Your task to perform on an android device: open chrome privacy settings Image 0: 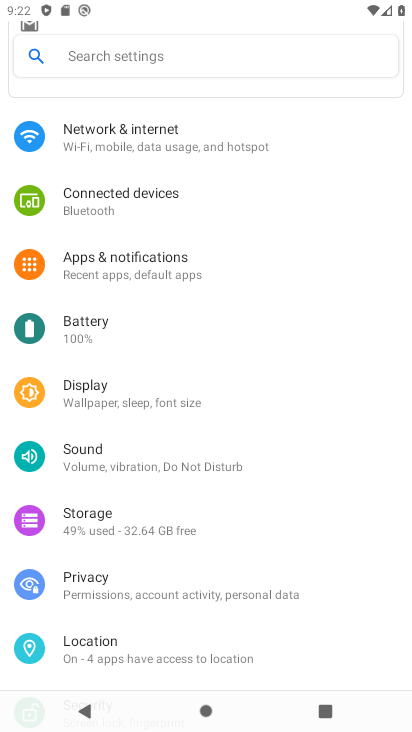
Step 0: click (74, 581)
Your task to perform on an android device: open chrome privacy settings Image 1: 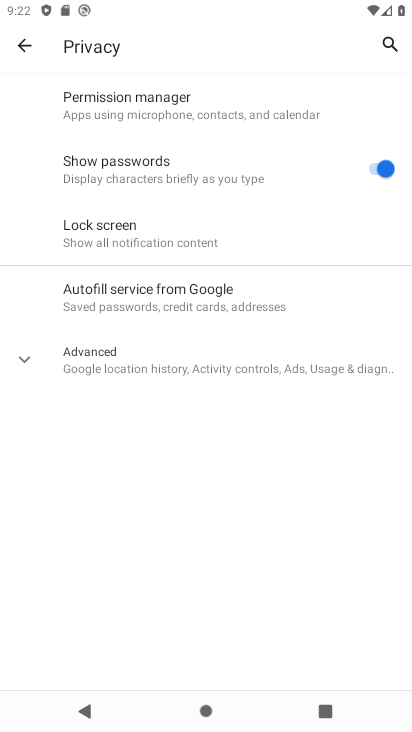
Step 1: click (91, 360)
Your task to perform on an android device: open chrome privacy settings Image 2: 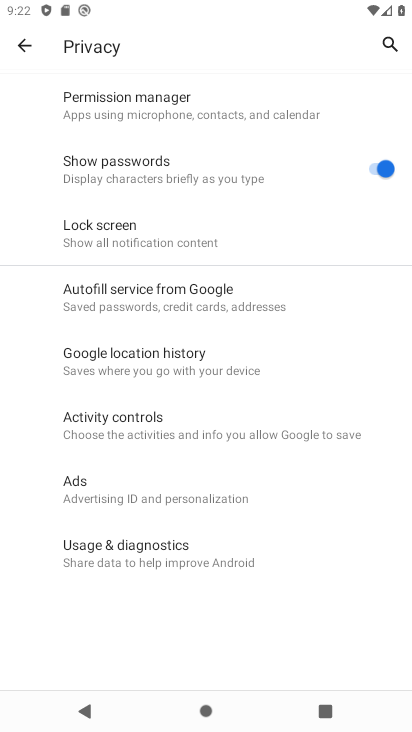
Step 2: task complete